Your task to perform on an android device: all mails in gmail Image 0: 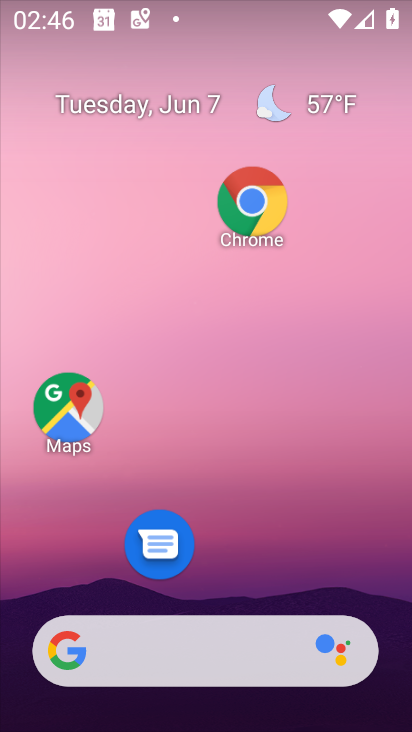
Step 0: drag from (273, 535) to (327, 267)
Your task to perform on an android device: all mails in gmail Image 1: 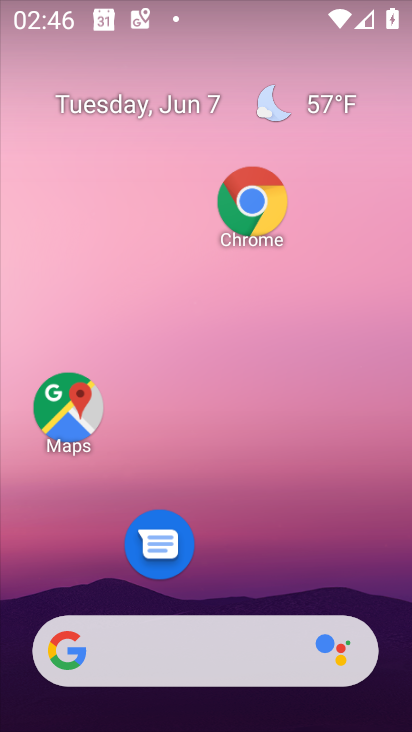
Step 1: drag from (223, 610) to (263, 263)
Your task to perform on an android device: all mails in gmail Image 2: 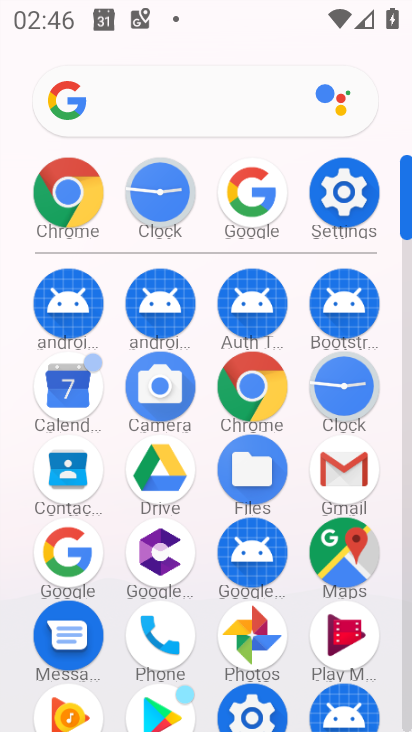
Step 2: click (332, 470)
Your task to perform on an android device: all mails in gmail Image 3: 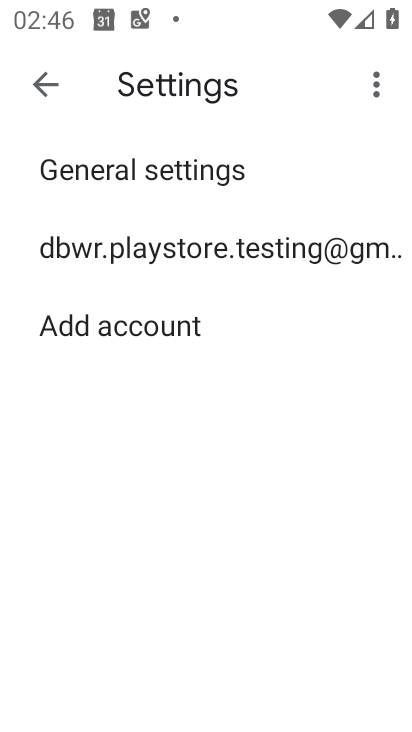
Step 3: click (43, 92)
Your task to perform on an android device: all mails in gmail Image 4: 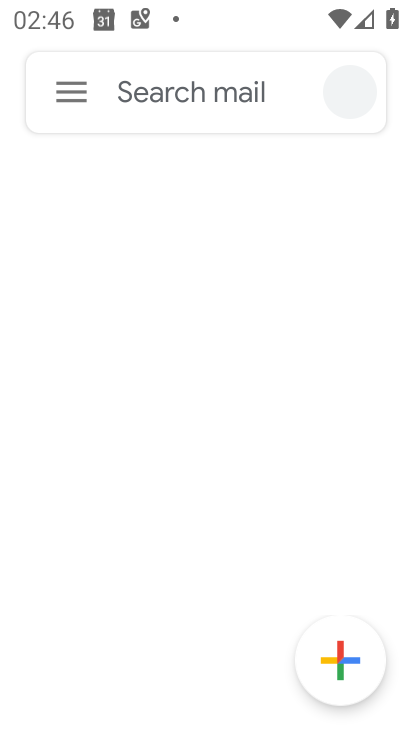
Step 4: click (50, 112)
Your task to perform on an android device: all mails in gmail Image 5: 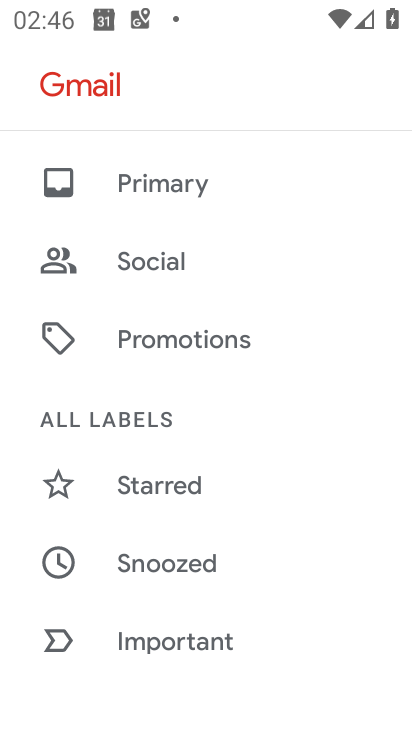
Step 5: drag from (188, 209) to (152, 643)
Your task to perform on an android device: all mails in gmail Image 6: 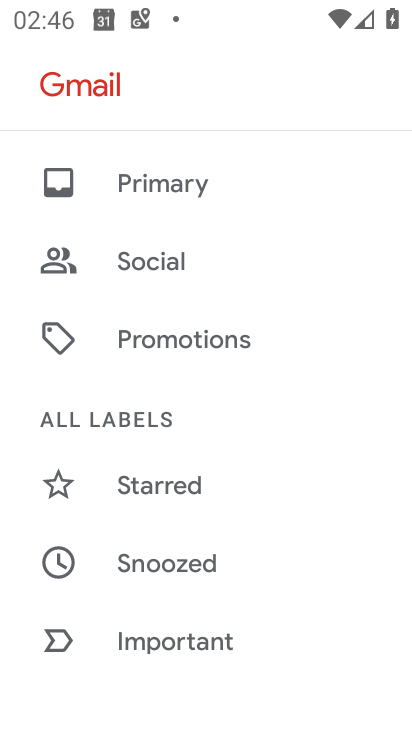
Step 6: drag from (145, 563) to (154, 174)
Your task to perform on an android device: all mails in gmail Image 7: 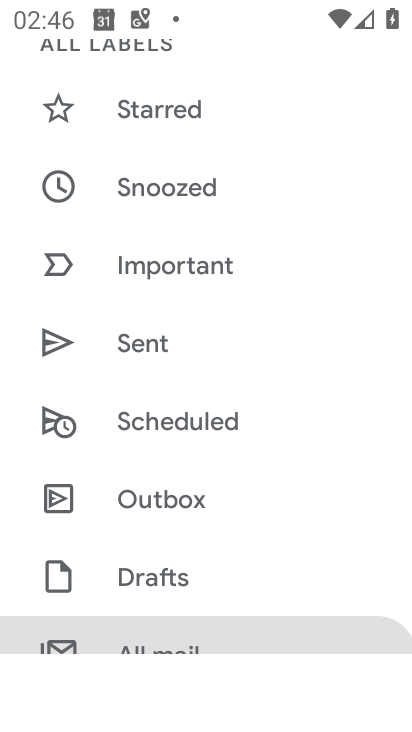
Step 7: drag from (186, 581) to (193, 236)
Your task to perform on an android device: all mails in gmail Image 8: 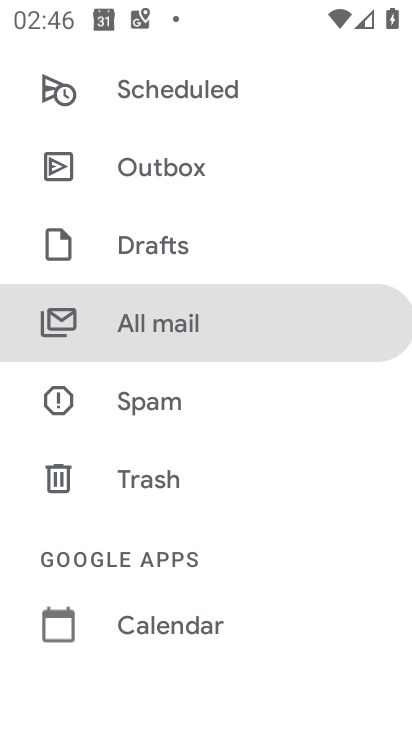
Step 8: click (179, 311)
Your task to perform on an android device: all mails in gmail Image 9: 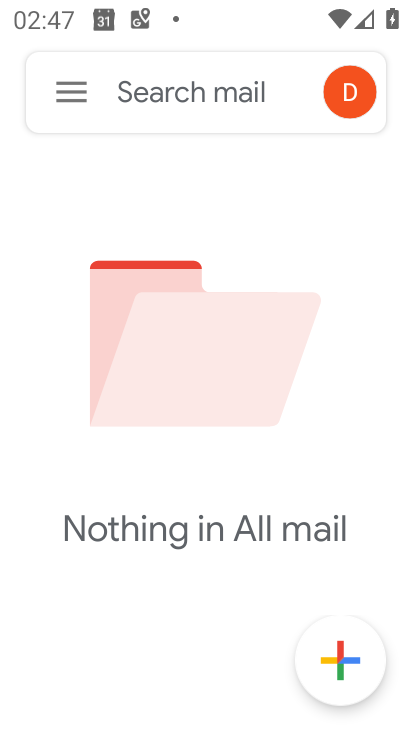
Step 9: task complete